Your task to perform on an android device: set the timer Image 0: 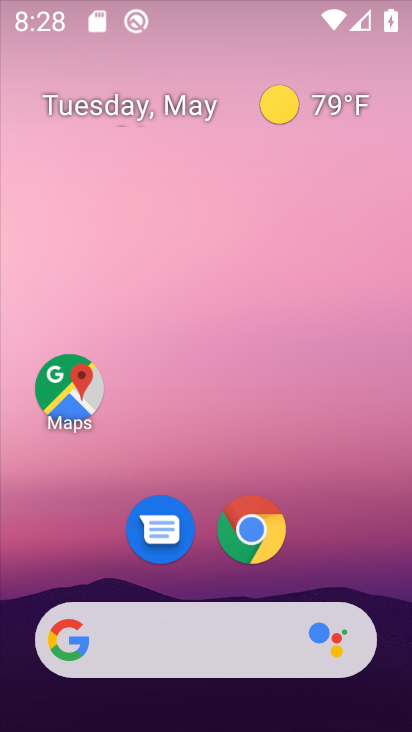
Step 0: click (305, 159)
Your task to perform on an android device: set the timer Image 1: 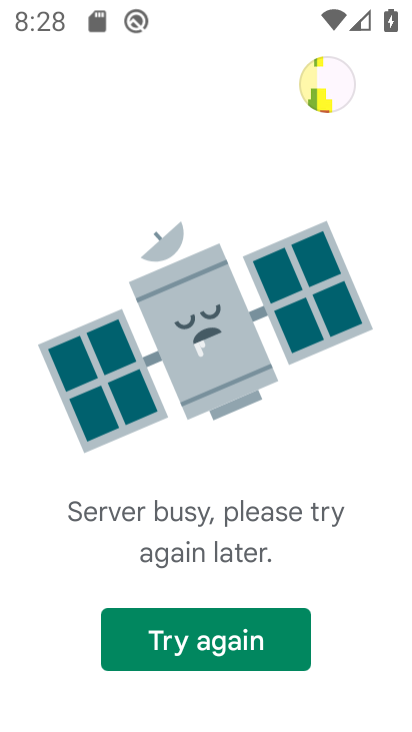
Step 1: press home button
Your task to perform on an android device: set the timer Image 2: 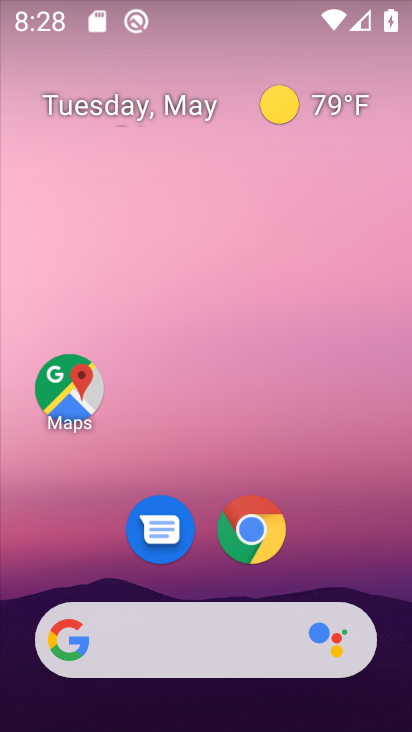
Step 2: drag from (381, 557) to (348, 141)
Your task to perform on an android device: set the timer Image 3: 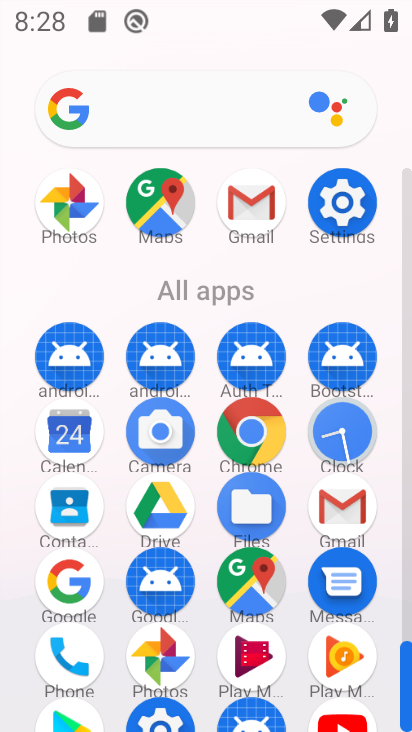
Step 3: click (324, 421)
Your task to perform on an android device: set the timer Image 4: 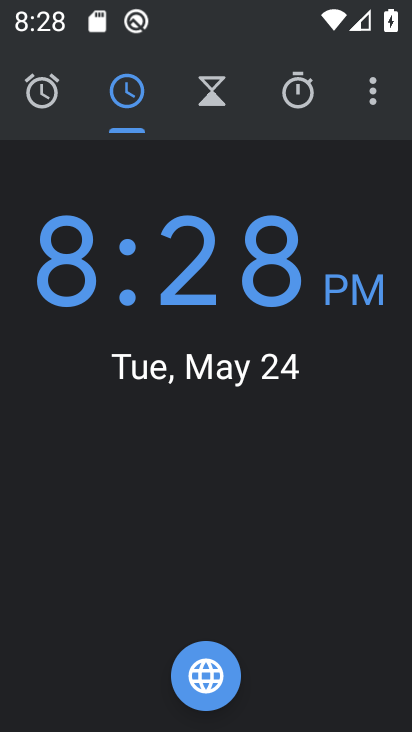
Step 4: click (196, 89)
Your task to perform on an android device: set the timer Image 5: 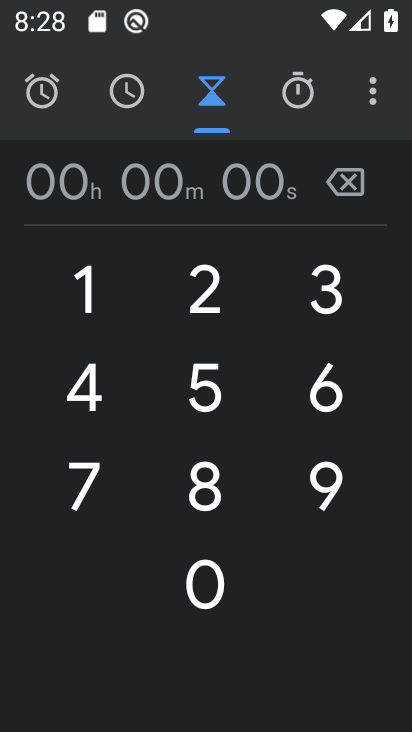
Step 5: click (217, 404)
Your task to perform on an android device: set the timer Image 6: 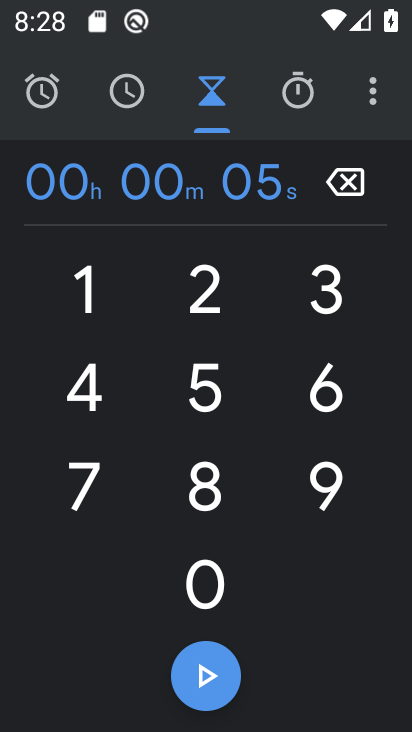
Step 6: task complete